Your task to perform on an android device: star an email in the gmail app Image 0: 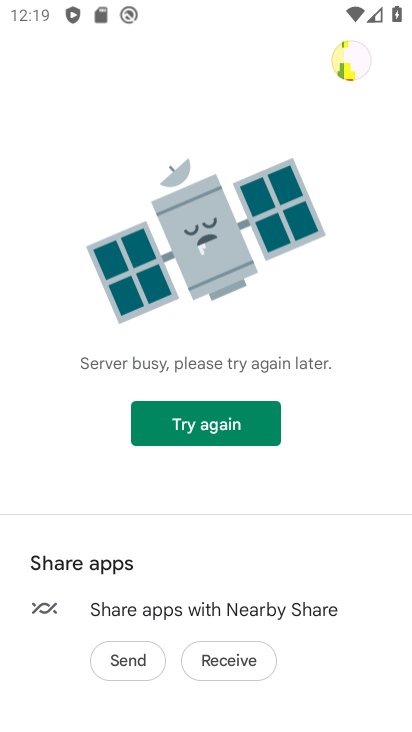
Step 0: press home button
Your task to perform on an android device: star an email in the gmail app Image 1: 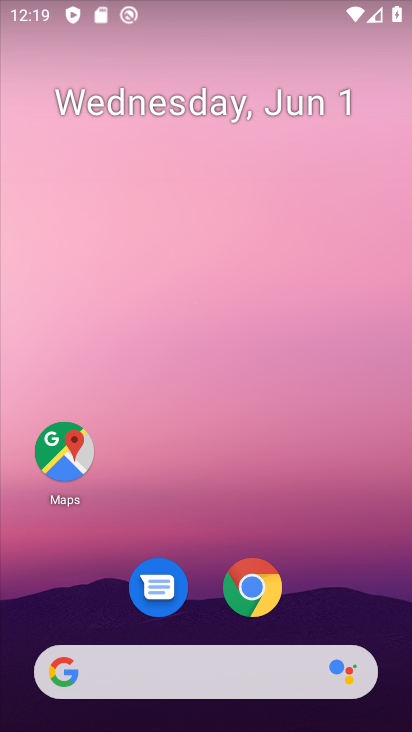
Step 1: drag from (316, 532) to (199, 262)
Your task to perform on an android device: star an email in the gmail app Image 2: 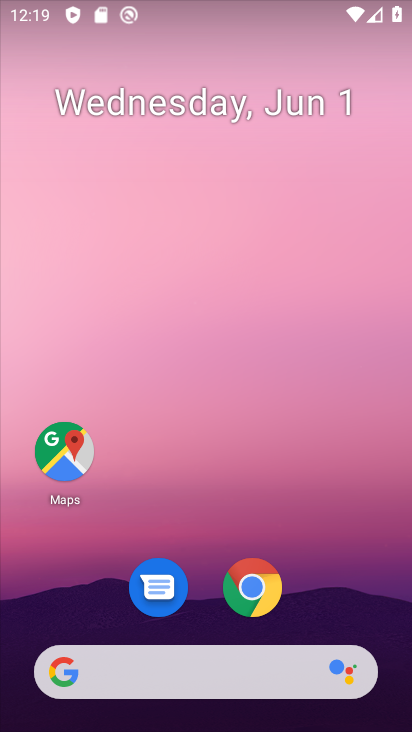
Step 2: drag from (209, 476) to (127, 80)
Your task to perform on an android device: star an email in the gmail app Image 3: 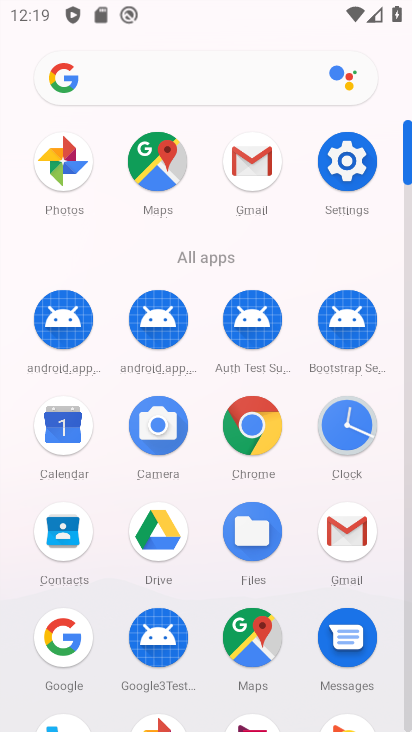
Step 3: click (249, 163)
Your task to perform on an android device: star an email in the gmail app Image 4: 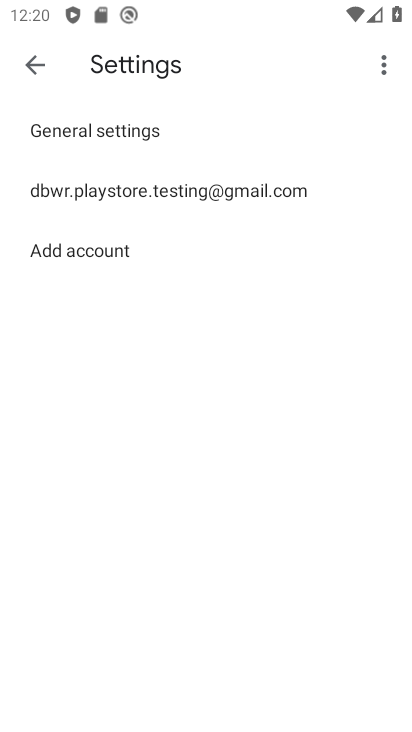
Step 4: click (25, 60)
Your task to perform on an android device: star an email in the gmail app Image 5: 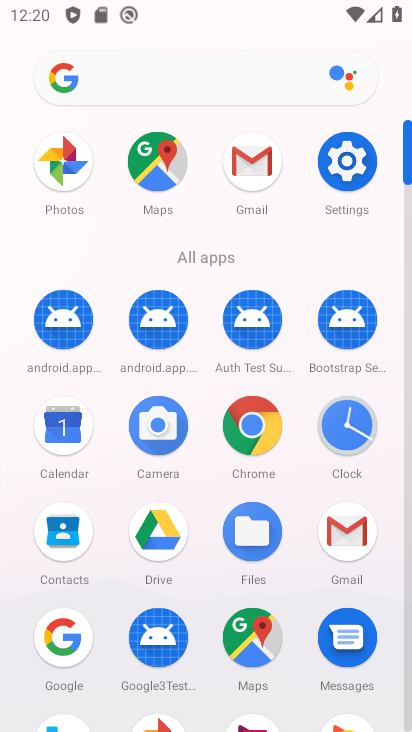
Step 5: click (240, 154)
Your task to perform on an android device: star an email in the gmail app Image 6: 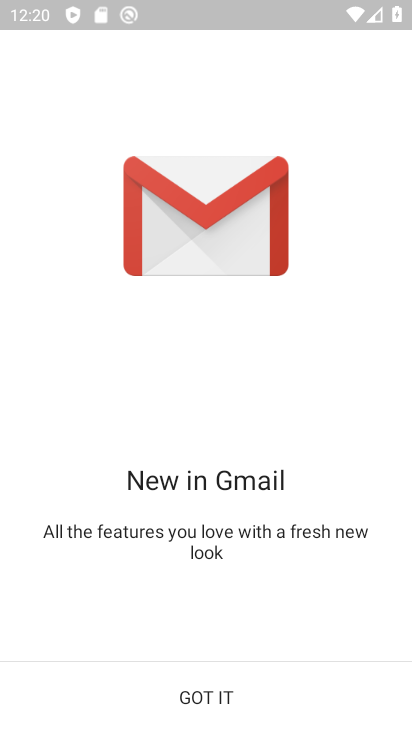
Step 6: click (202, 685)
Your task to perform on an android device: star an email in the gmail app Image 7: 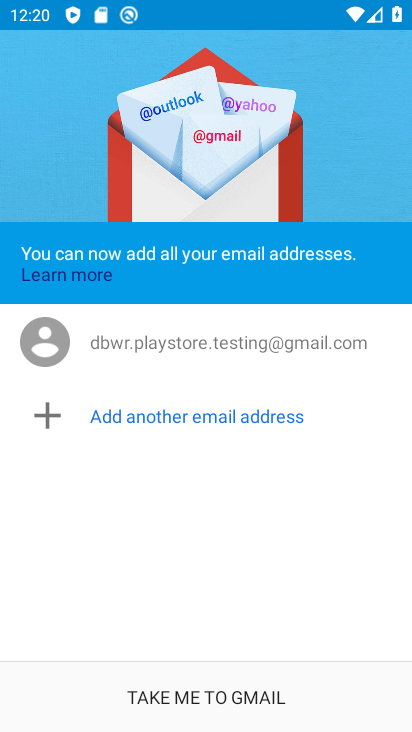
Step 7: click (216, 699)
Your task to perform on an android device: star an email in the gmail app Image 8: 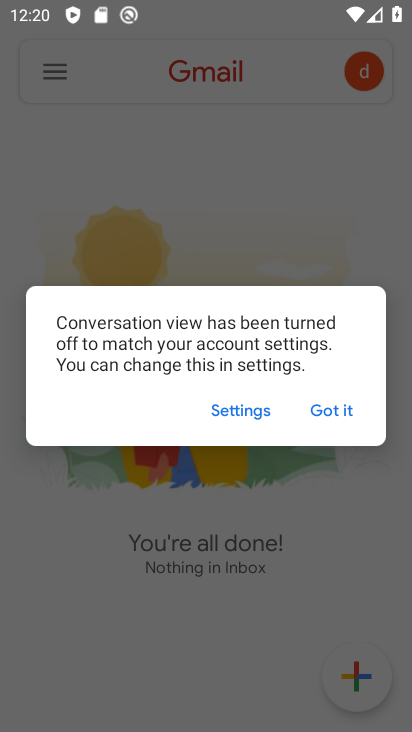
Step 8: click (325, 398)
Your task to perform on an android device: star an email in the gmail app Image 9: 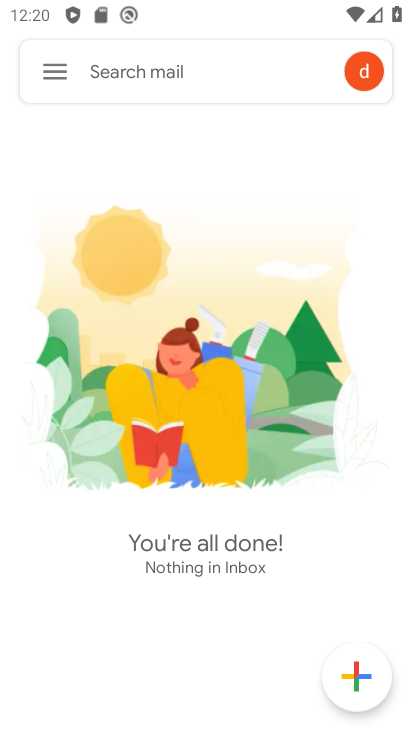
Step 9: click (44, 65)
Your task to perform on an android device: star an email in the gmail app Image 10: 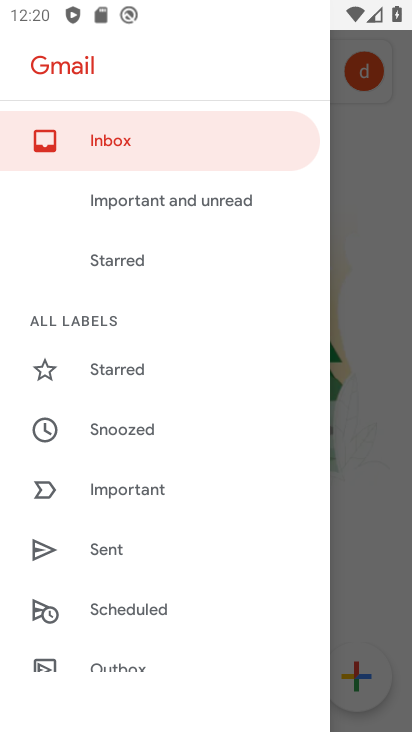
Step 10: drag from (136, 546) to (34, 62)
Your task to perform on an android device: star an email in the gmail app Image 11: 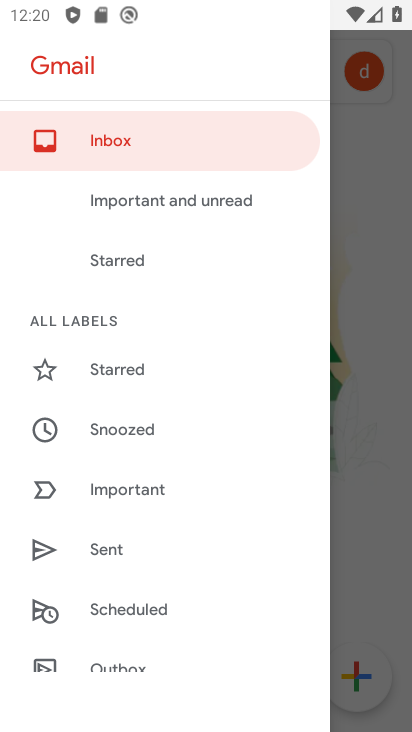
Step 11: drag from (136, 530) to (85, 182)
Your task to perform on an android device: star an email in the gmail app Image 12: 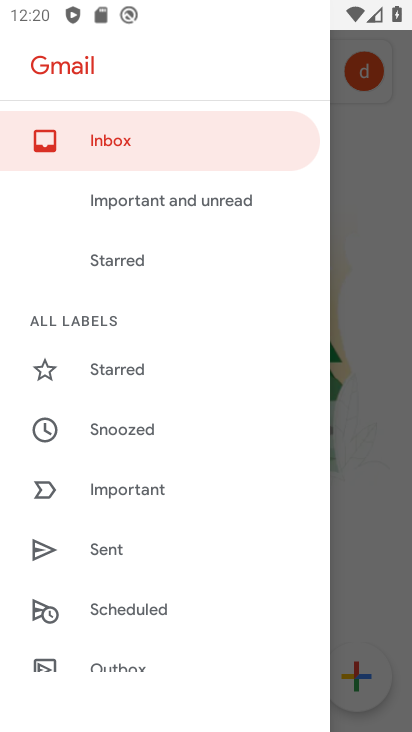
Step 12: drag from (219, 571) to (244, 282)
Your task to perform on an android device: star an email in the gmail app Image 13: 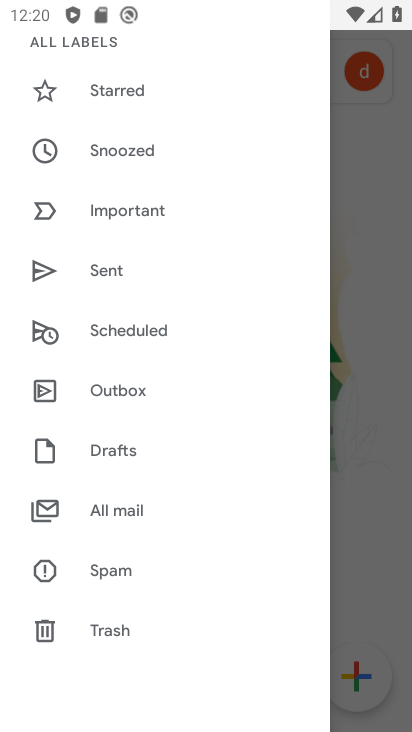
Step 13: click (97, 520)
Your task to perform on an android device: star an email in the gmail app Image 14: 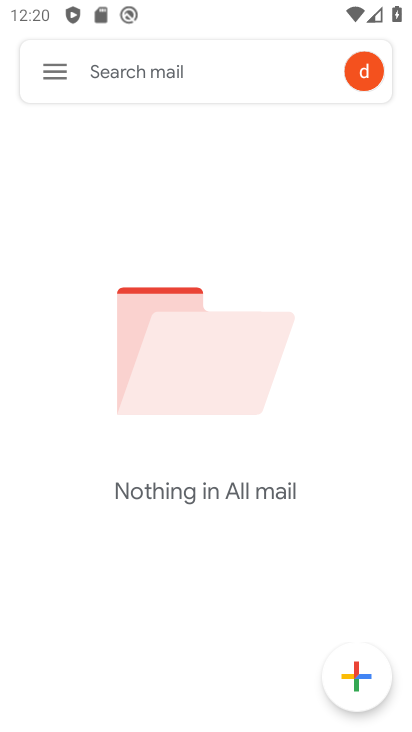
Step 14: task complete